Your task to perform on an android device: turn on notifications settings in the gmail app Image 0: 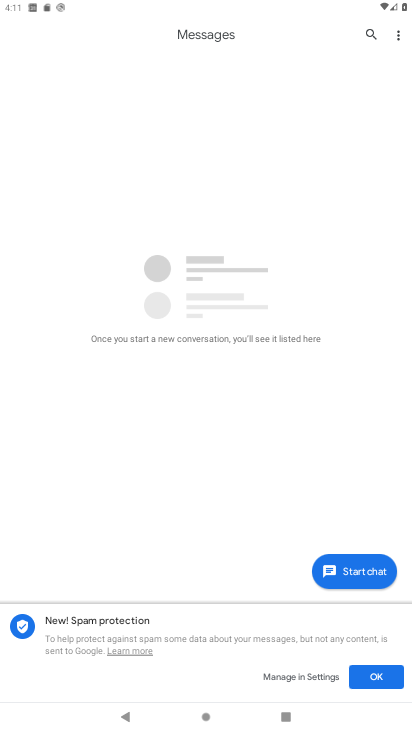
Step 0: press home button
Your task to perform on an android device: turn on notifications settings in the gmail app Image 1: 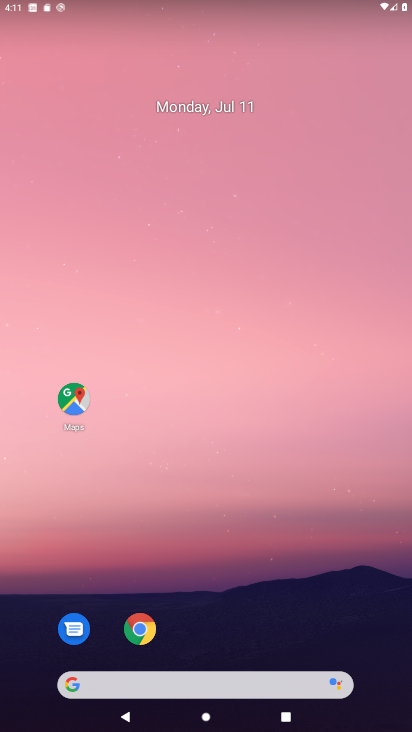
Step 1: drag from (395, 583) to (384, 72)
Your task to perform on an android device: turn on notifications settings in the gmail app Image 2: 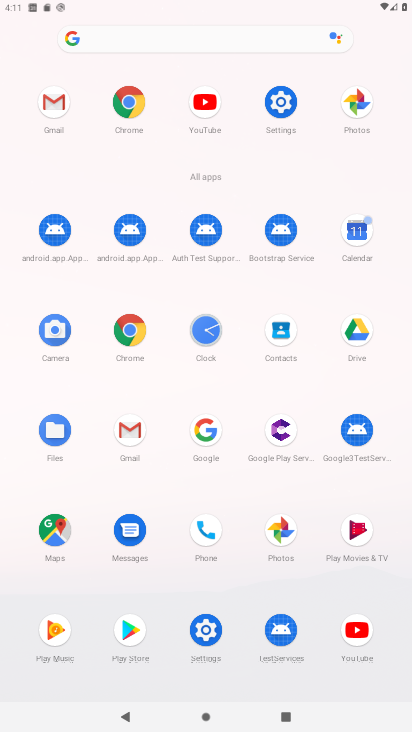
Step 2: click (137, 430)
Your task to perform on an android device: turn on notifications settings in the gmail app Image 3: 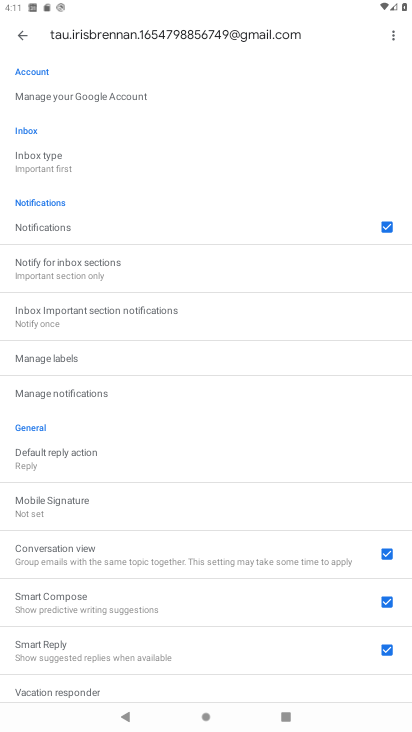
Step 3: task complete